Your task to perform on an android device: Open the calendar app, open the side menu, and click the "Day" option Image 0: 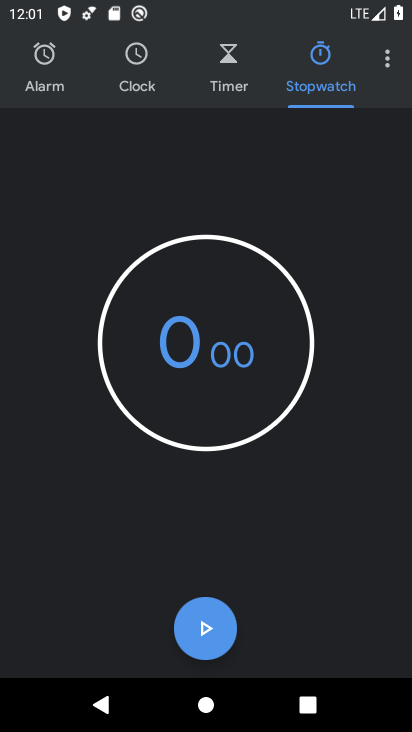
Step 0: press home button
Your task to perform on an android device: Open the calendar app, open the side menu, and click the "Day" option Image 1: 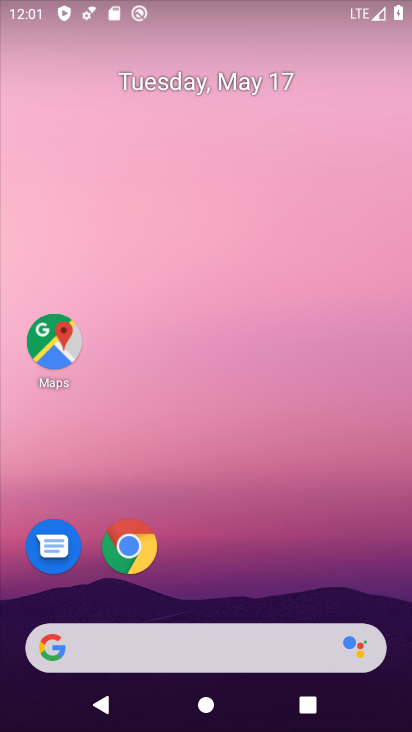
Step 1: drag from (386, 597) to (352, 30)
Your task to perform on an android device: Open the calendar app, open the side menu, and click the "Day" option Image 2: 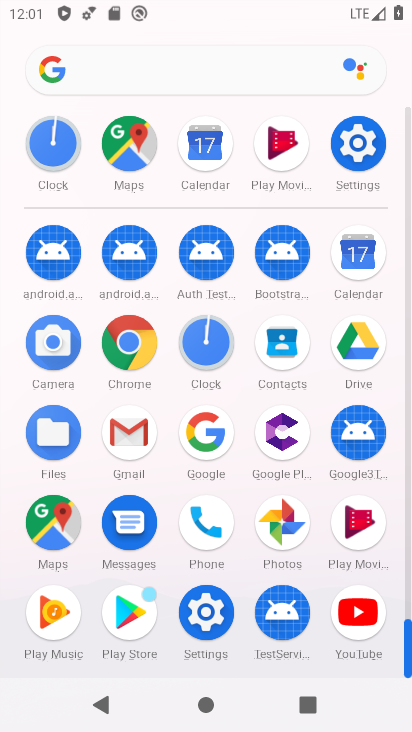
Step 2: click (361, 253)
Your task to perform on an android device: Open the calendar app, open the side menu, and click the "Day" option Image 3: 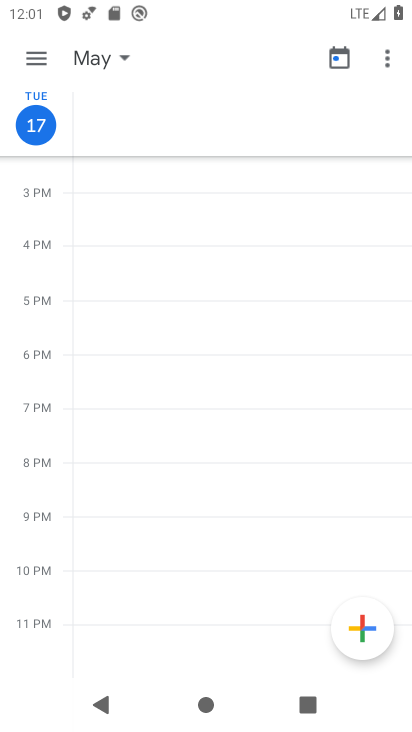
Step 3: click (42, 57)
Your task to perform on an android device: Open the calendar app, open the side menu, and click the "Day" option Image 4: 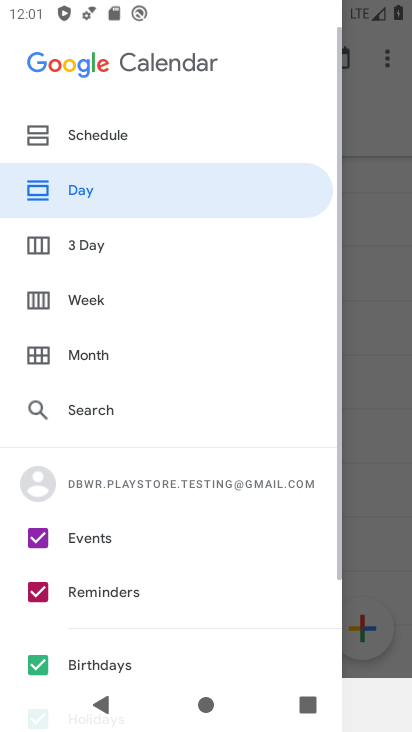
Step 4: click (102, 191)
Your task to perform on an android device: Open the calendar app, open the side menu, and click the "Day" option Image 5: 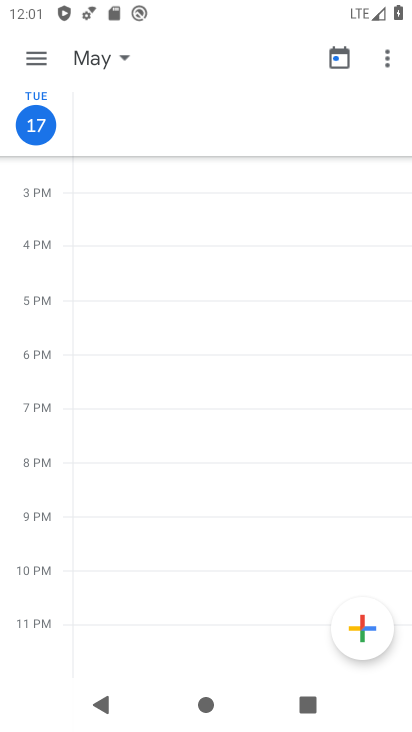
Step 5: task complete